Your task to perform on an android device: change the clock style Image 0: 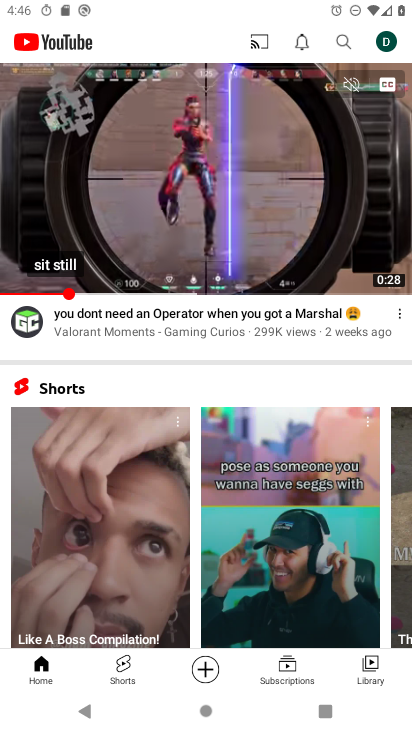
Step 0: press home button
Your task to perform on an android device: change the clock style Image 1: 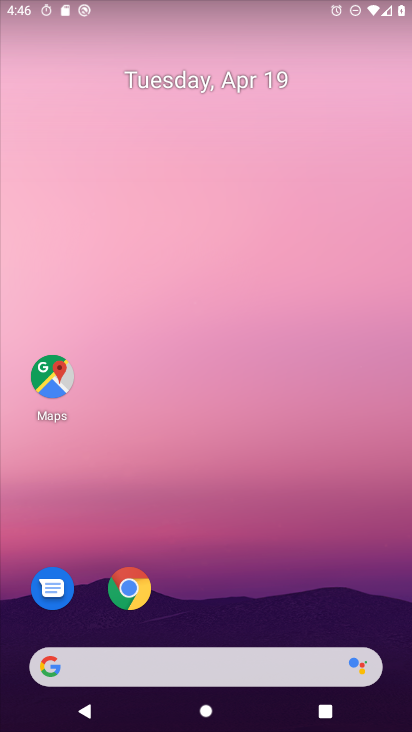
Step 1: drag from (216, 564) to (239, 100)
Your task to perform on an android device: change the clock style Image 2: 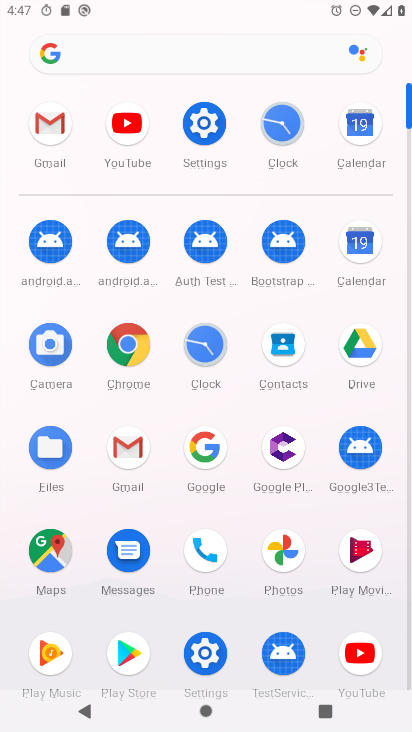
Step 2: click (202, 351)
Your task to perform on an android device: change the clock style Image 3: 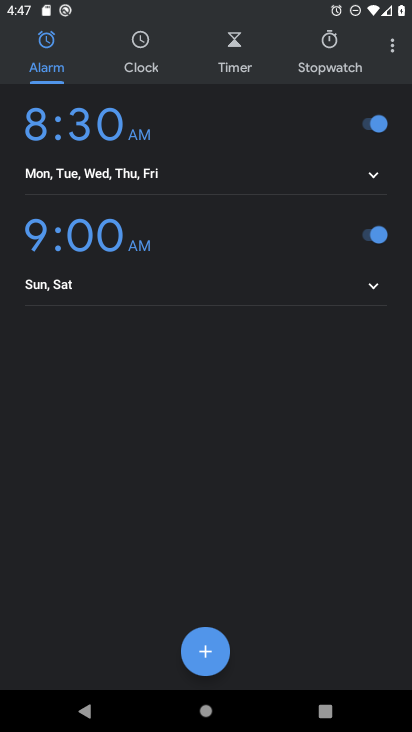
Step 3: click (391, 46)
Your task to perform on an android device: change the clock style Image 4: 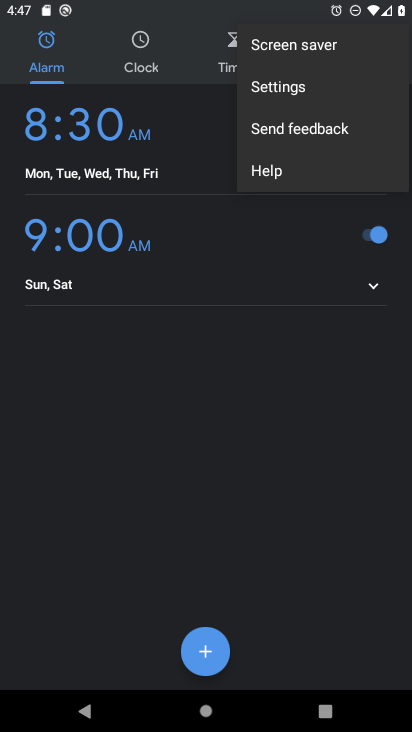
Step 4: click (294, 90)
Your task to perform on an android device: change the clock style Image 5: 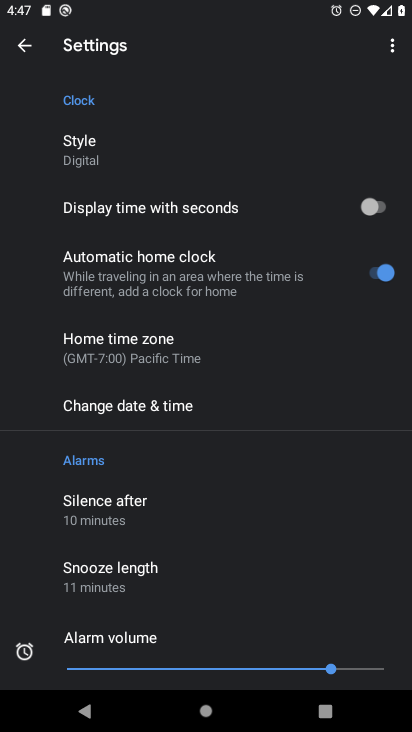
Step 5: click (139, 150)
Your task to perform on an android device: change the clock style Image 6: 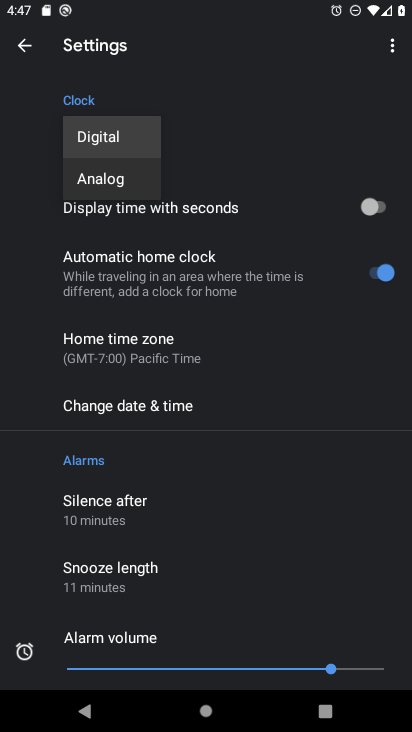
Step 6: click (134, 172)
Your task to perform on an android device: change the clock style Image 7: 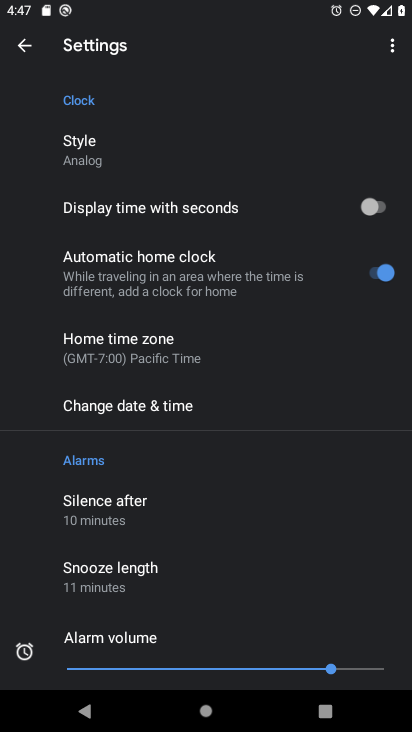
Step 7: task complete